Your task to perform on an android device: change the clock display to analog Image 0: 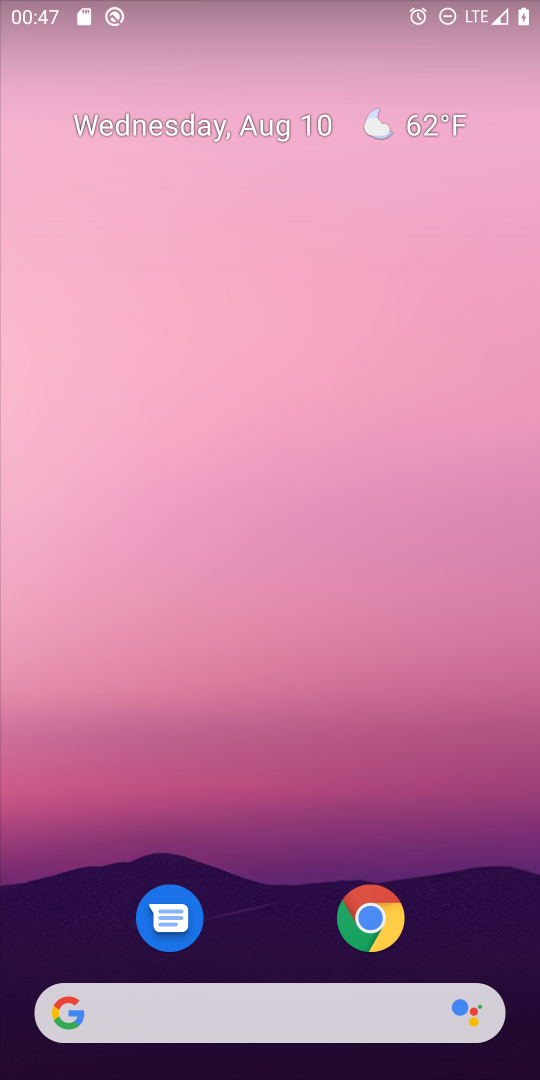
Step 0: drag from (282, 927) to (256, 139)
Your task to perform on an android device: change the clock display to analog Image 1: 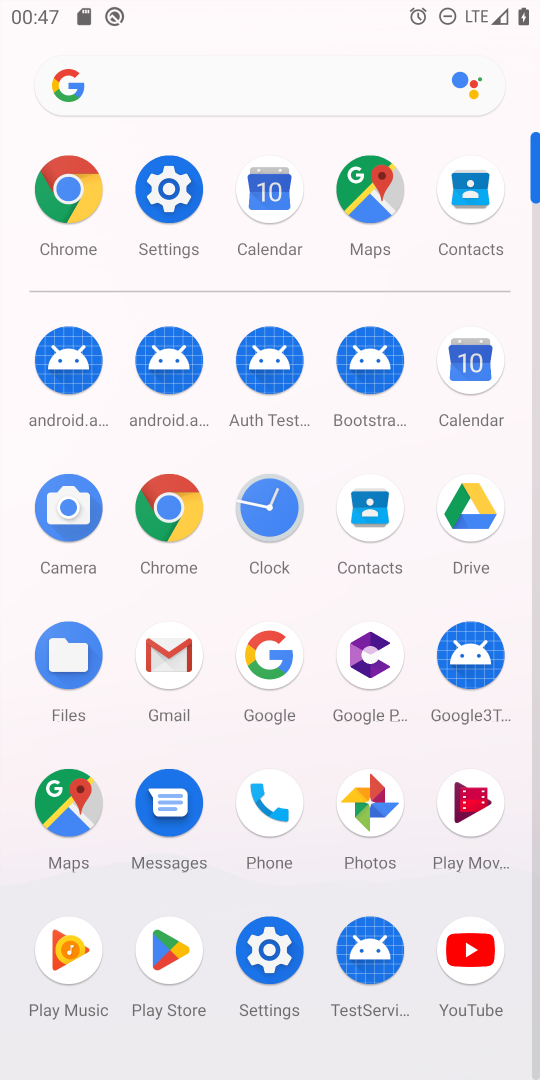
Step 1: click (282, 514)
Your task to perform on an android device: change the clock display to analog Image 2: 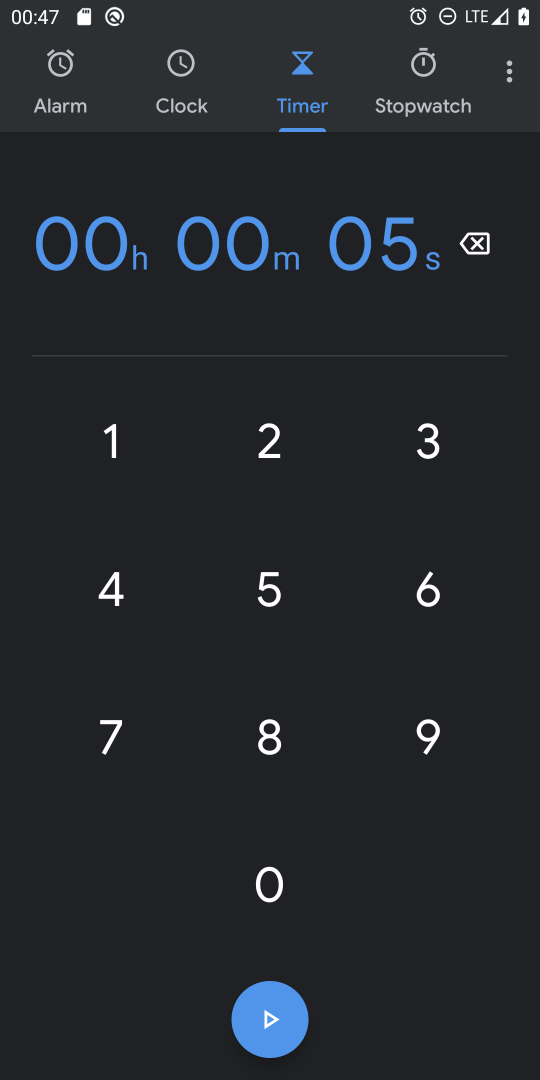
Step 2: click (516, 63)
Your task to perform on an android device: change the clock display to analog Image 3: 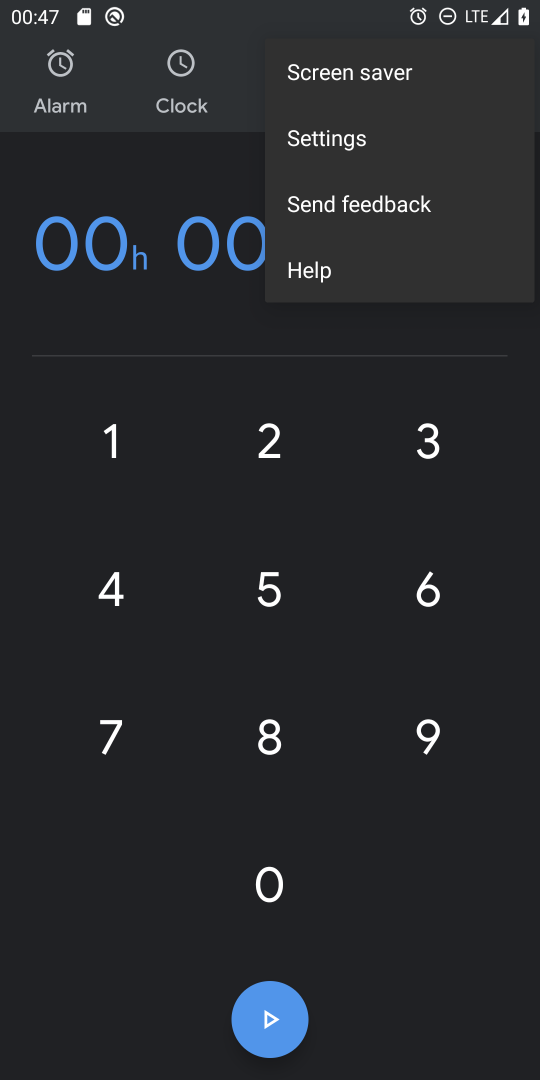
Step 3: click (307, 150)
Your task to perform on an android device: change the clock display to analog Image 4: 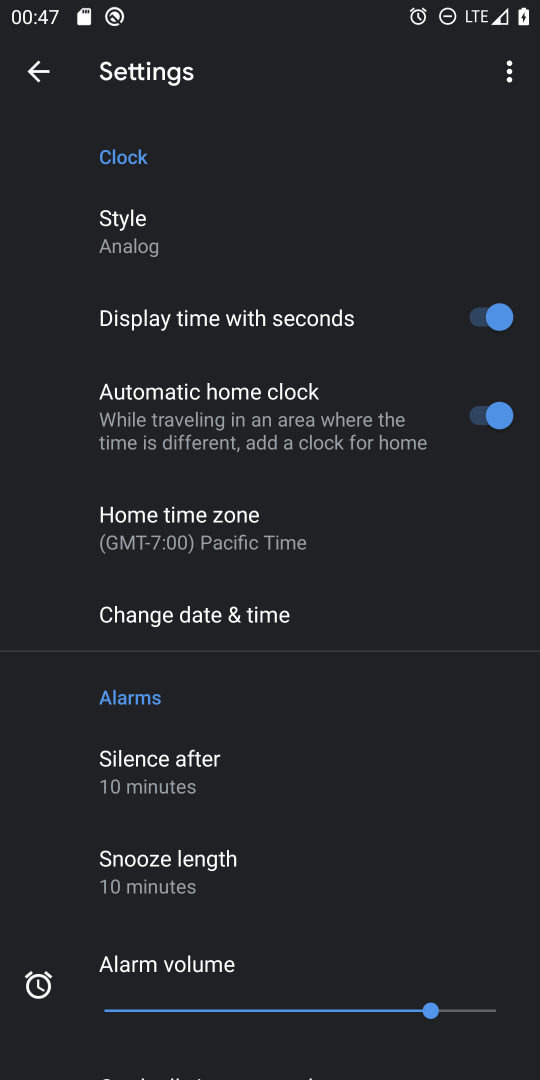
Step 4: task complete